Your task to perform on an android device: What's the weather going to be tomorrow? Image 0: 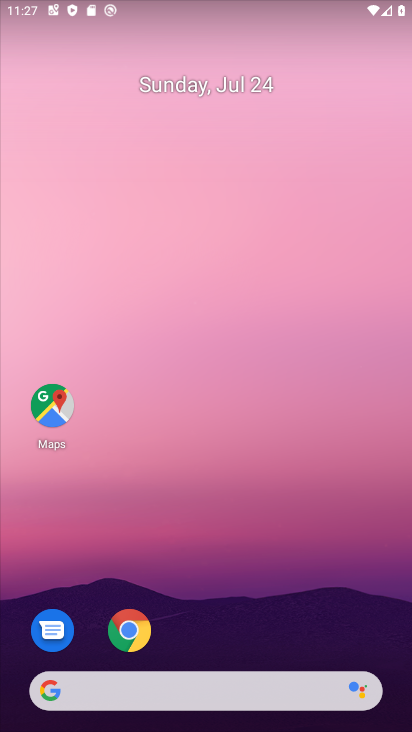
Step 0: click (48, 406)
Your task to perform on an android device: What's the weather going to be tomorrow? Image 1: 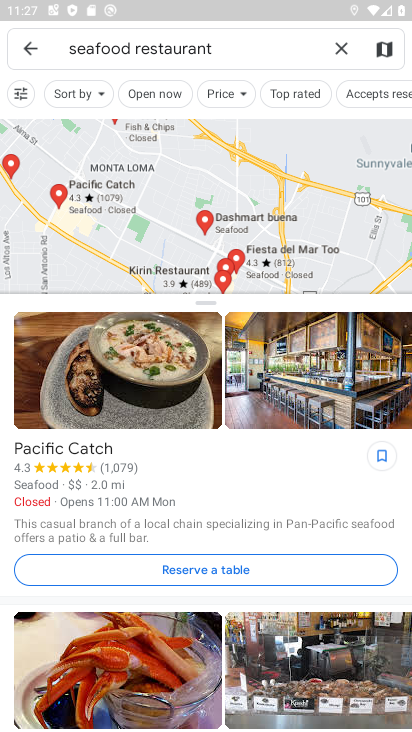
Step 1: press back button
Your task to perform on an android device: What's the weather going to be tomorrow? Image 2: 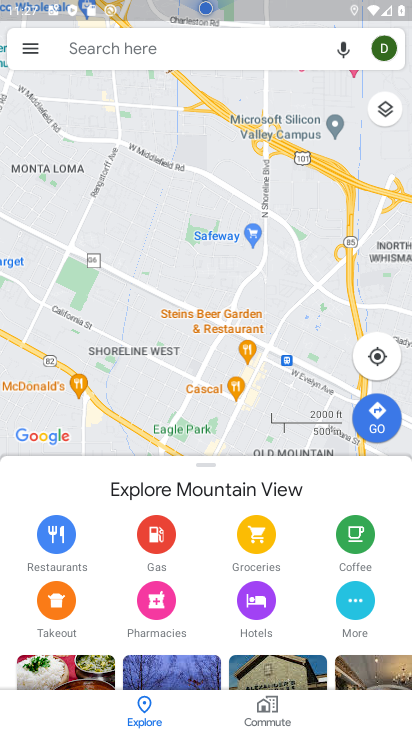
Step 2: press back button
Your task to perform on an android device: What's the weather going to be tomorrow? Image 3: 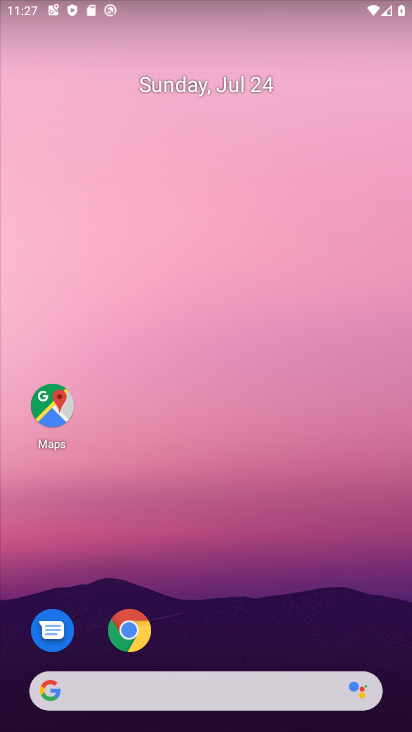
Step 3: click (222, 260)
Your task to perform on an android device: What's the weather going to be tomorrow? Image 4: 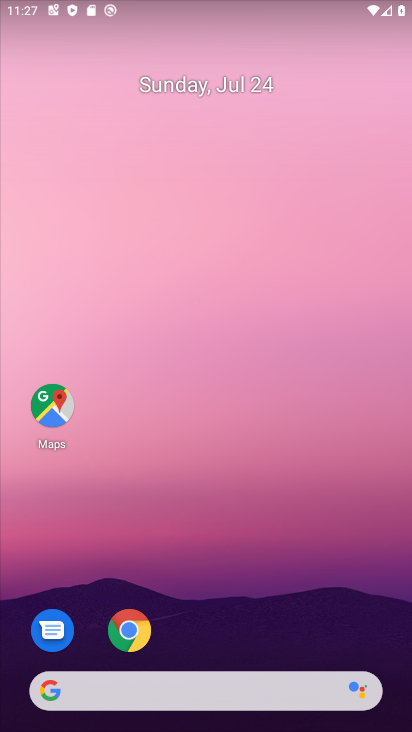
Step 4: drag from (189, 501) to (189, 85)
Your task to perform on an android device: What's the weather going to be tomorrow? Image 5: 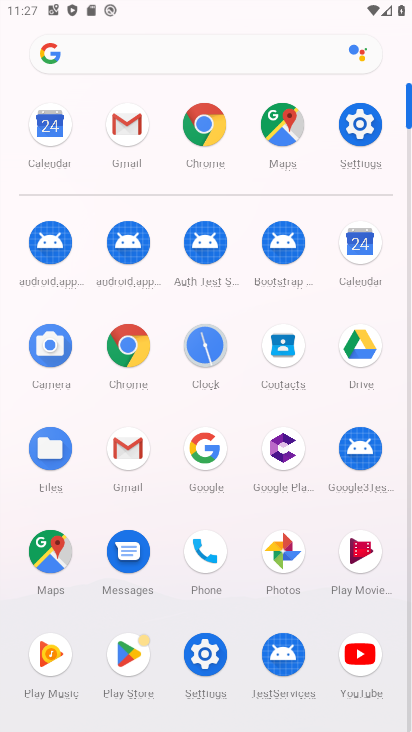
Step 5: click (208, 458)
Your task to perform on an android device: What's the weather going to be tomorrow? Image 6: 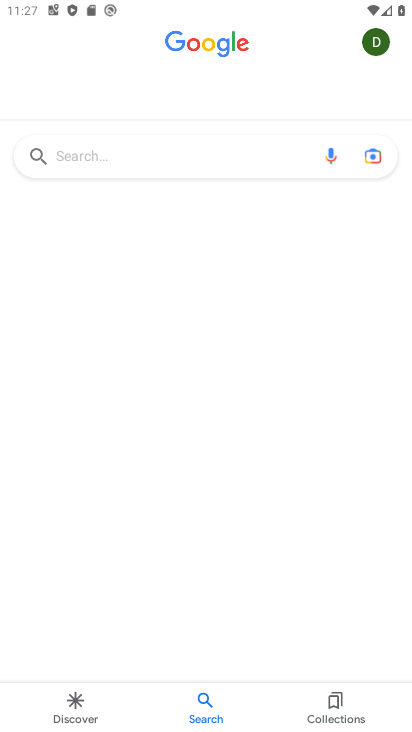
Step 6: click (98, 143)
Your task to perform on an android device: What's the weather going to be tomorrow? Image 7: 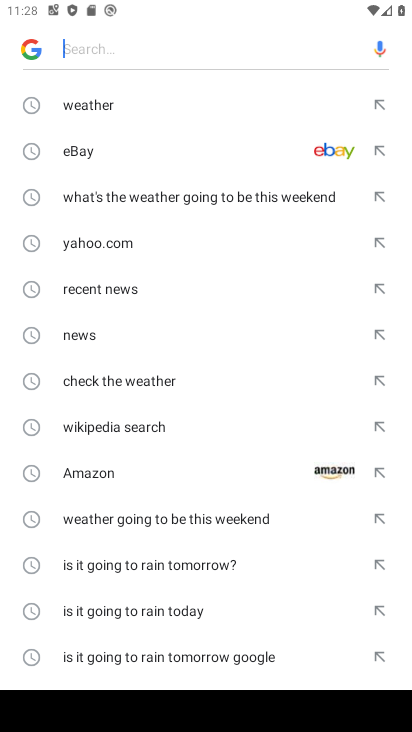
Step 7: click (88, 101)
Your task to perform on an android device: What's the weather going to be tomorrow? Image 8: 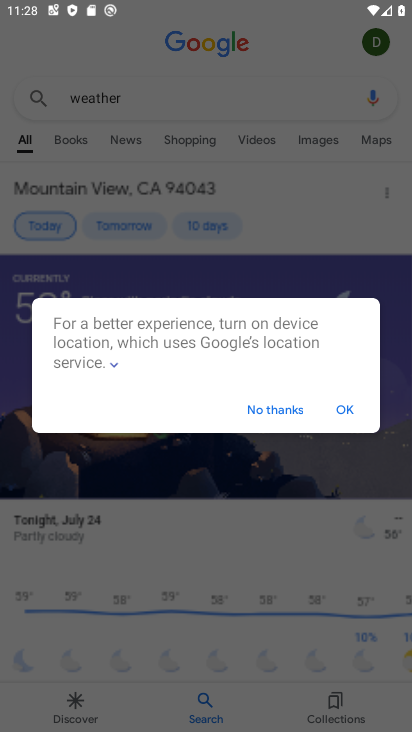
Step 8: task complete